Your task to perform on an android device: Show me productivity apps on the Play Store Image 0: 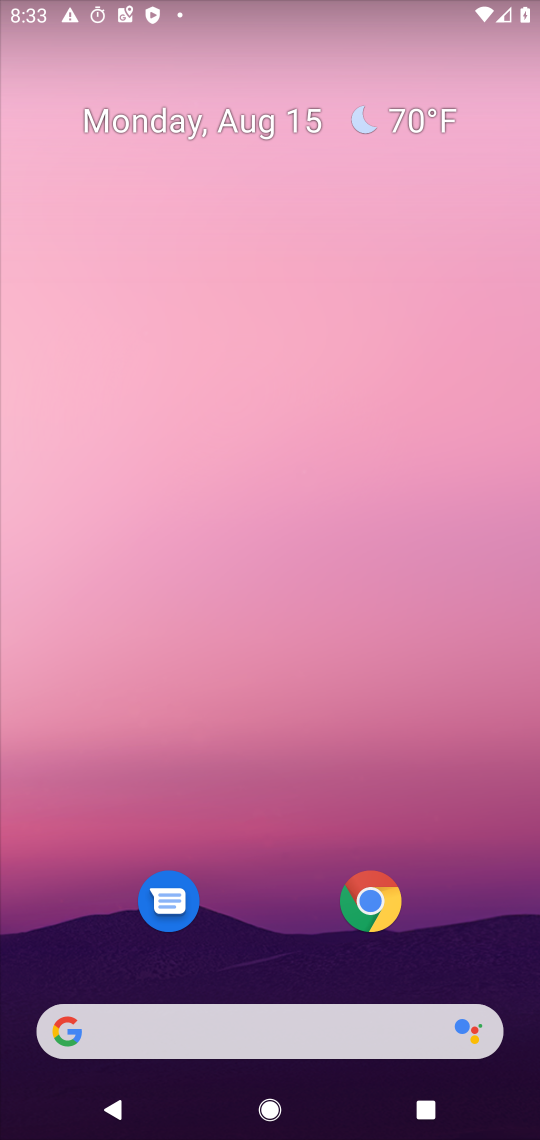
Step 0: drag from (237, 981) to (274, 244)
Your task to perform on an android device: Show me productivity apps on the Play Store Image 1: 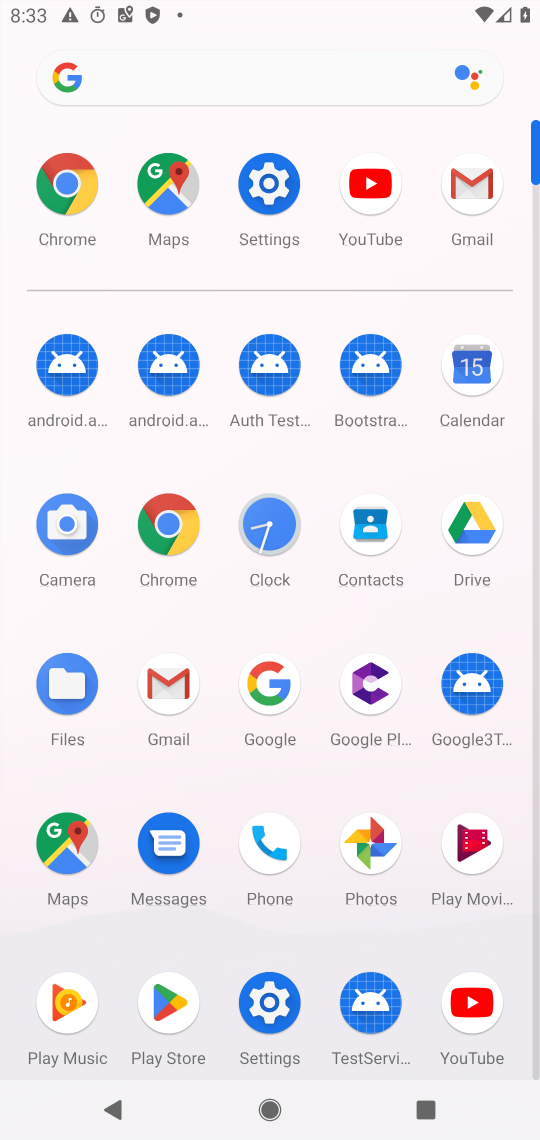
Step 1: click (165, 1013)
Your task to perform on an android device: Show me productivity apps on the Play Store Image 2: 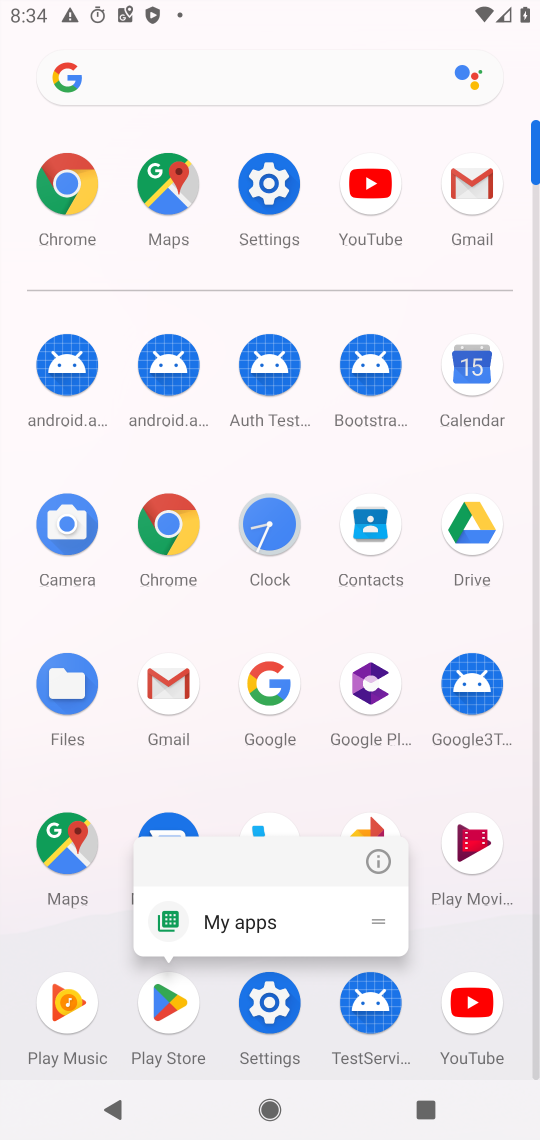
Step 2: click (163, 1013)
Your task to perform on an android device: Show me productivity apps on the Play Store Image 3: 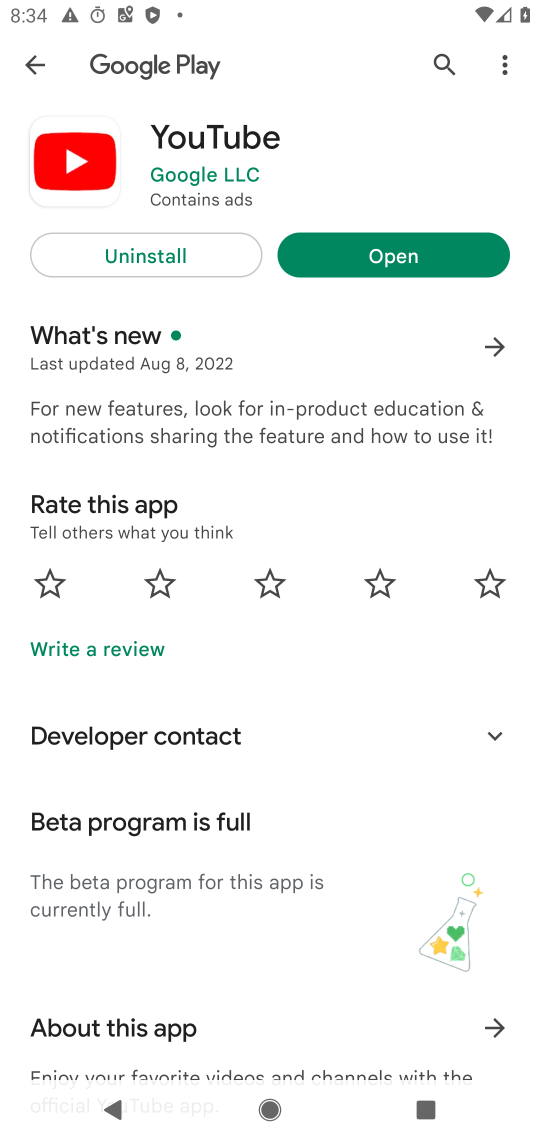
Step 3: click (43, 59)
Your task to perform on an android device: Show me productivity apps on the Play Store Image 4: 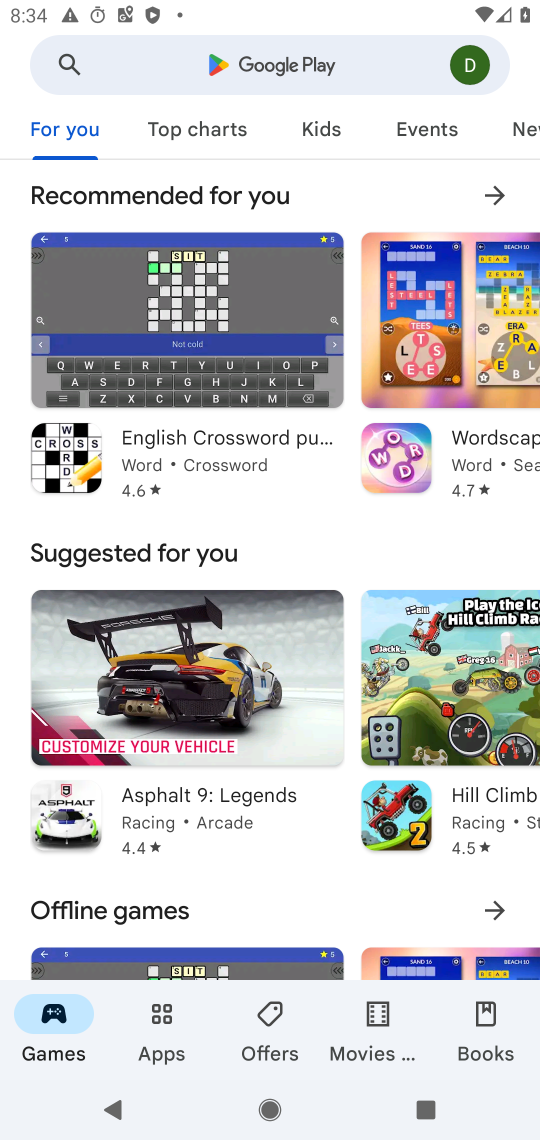
Step 4: click (166, 1039)
Your task to perform on an android device: Show me productivity apps on the Play Store Image 5: 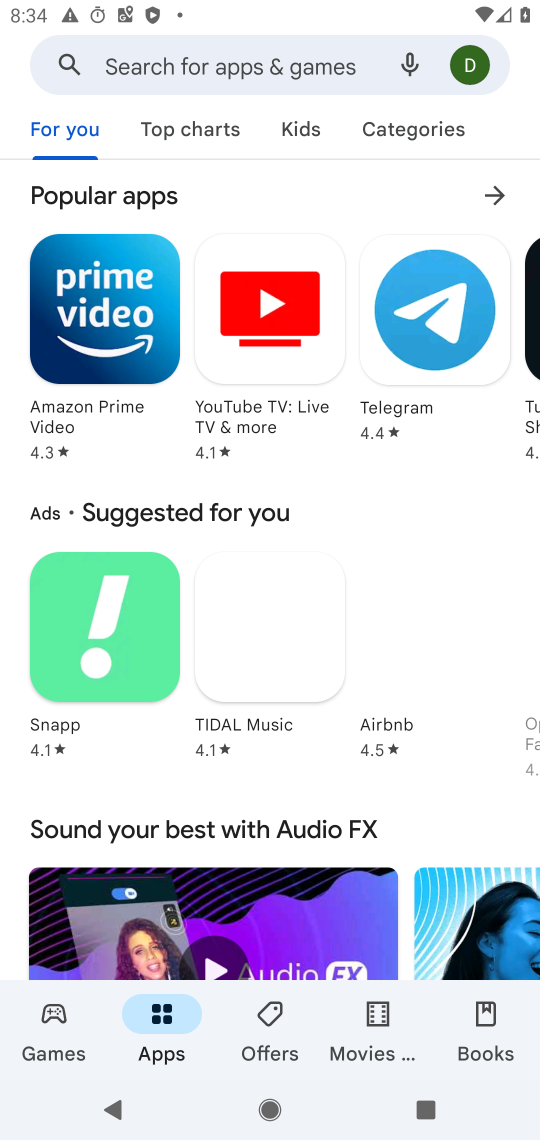
Step 5: click (441, 135)
Your task to perform on an android device: Show me productivity apps on the Play Store Image 6: 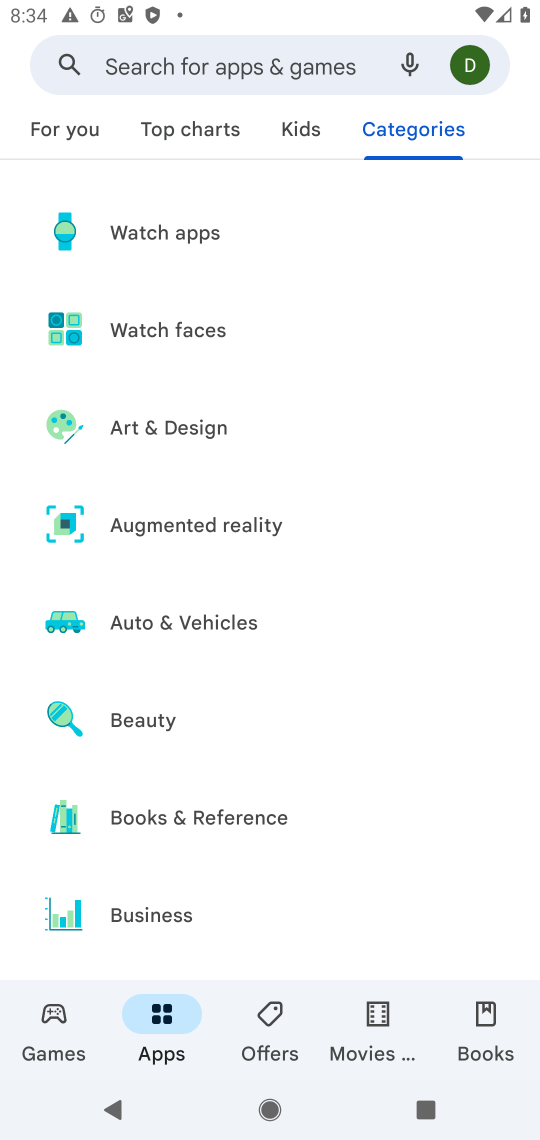
Step 6: drag from (190, 786) to (210, 270)
Your task to perform on an android device: Show me productivity apps on the Play Store Image 7: 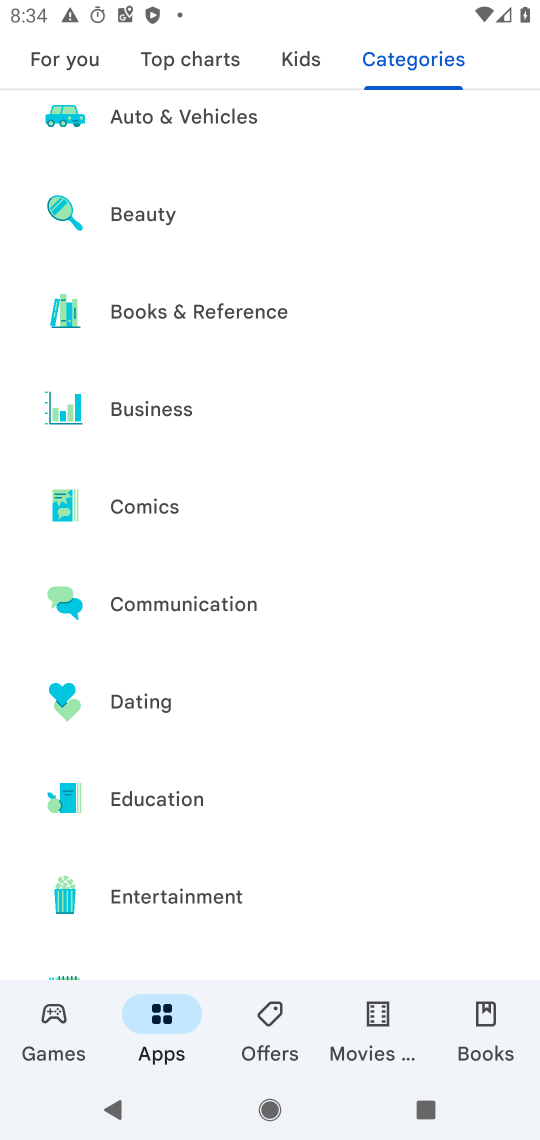
Step 7: drag from (245, 863) to (273, 276)
Your task to perform on an android device: Show me productivity apps on the Play Store Image 8: 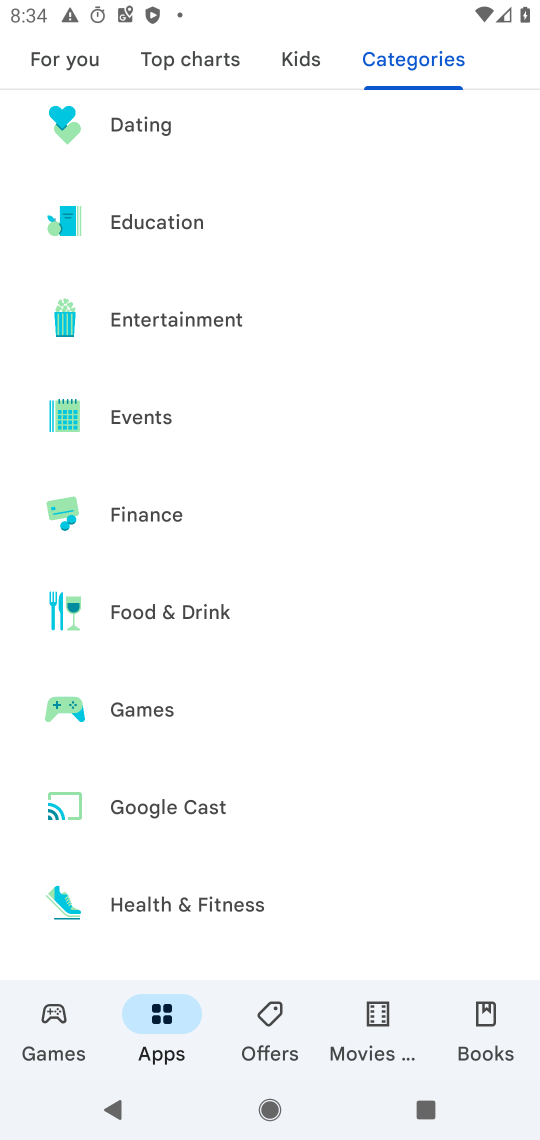
Step 8: drag from (232, 892) to (261, 187)
Your task to perform on an android device: Show me productivity apps on the Play Store Image 9: 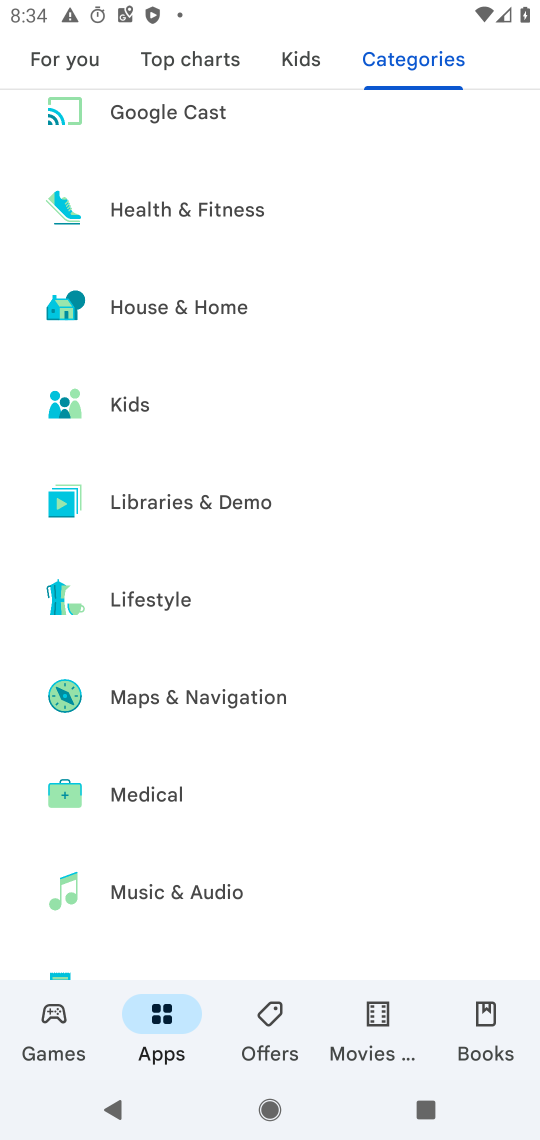
Step 9: drag from (250, 812) to (247, 479)
Your task to perform on an android device: Show me productivity apps on the Play Store Image 10: 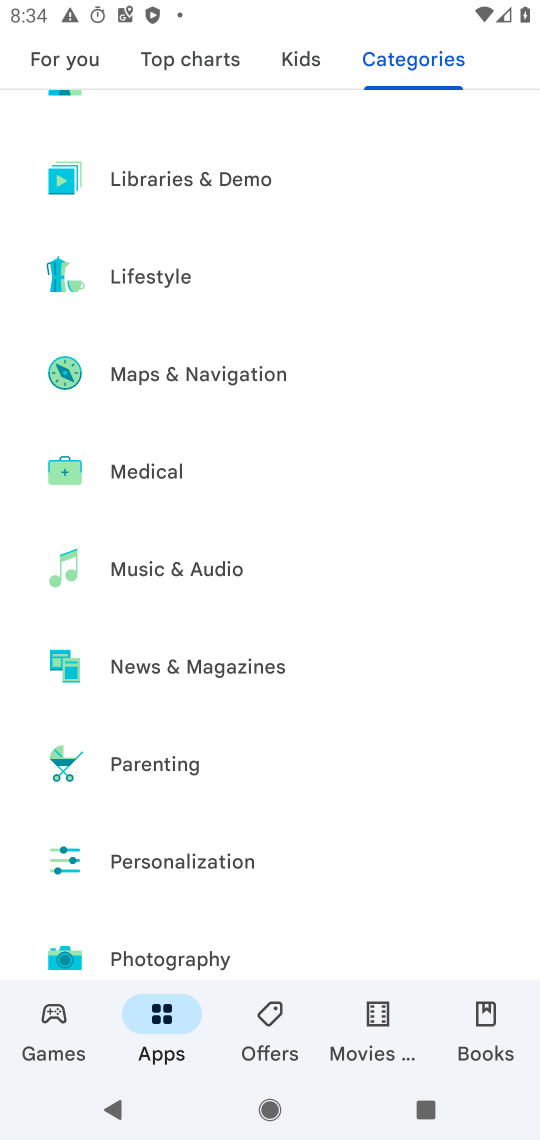
Step 10: drag from (168, 887) to (203, 425)
Your task to perform on an android device: Show me productivity apps on the Play Store Image 11: 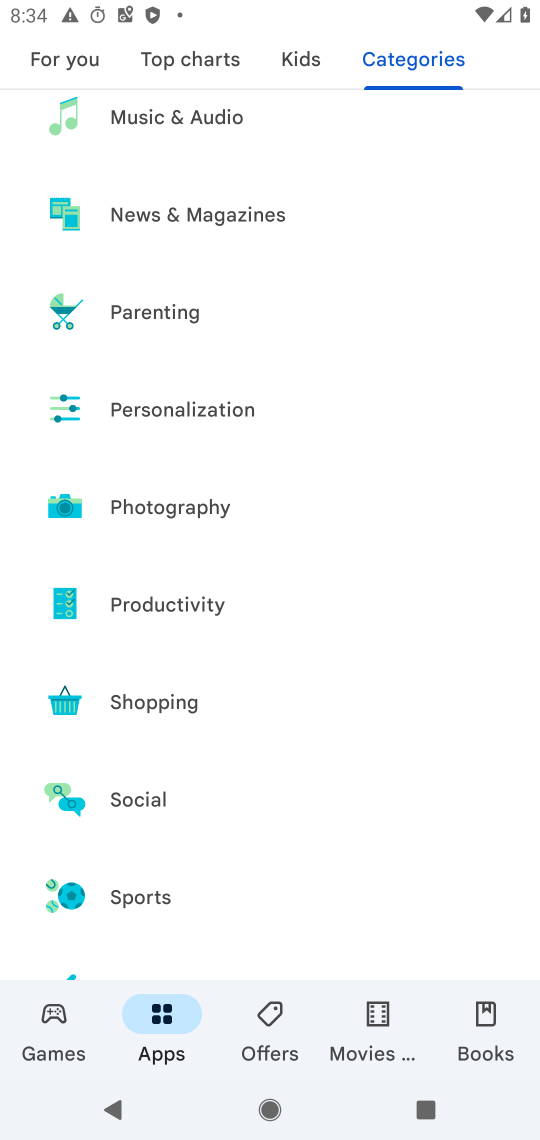
Step 11: click (193, 617)
Your task to perform on an android device: Show me productivity apps on the Play Store Image 12: 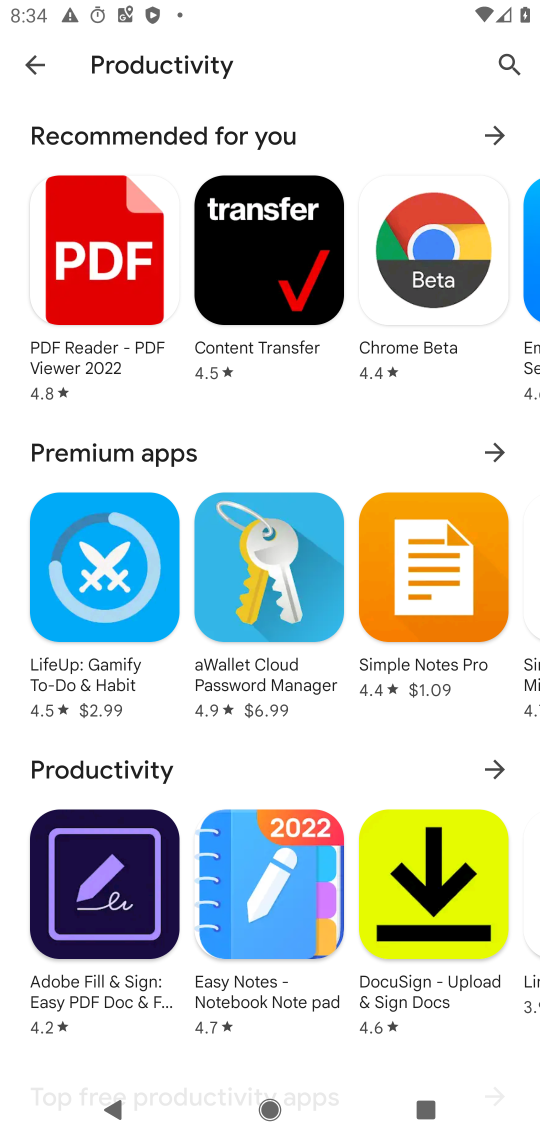
Step 12: task complete